Your task to perform on an android device: see sites visited before in the chrome app Image 0: 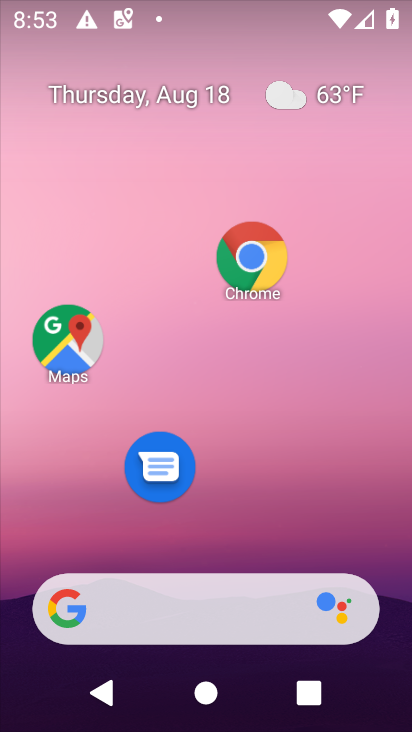
Step 0: drag from (308, 490) to (261, 104)
Your task to perform on an android device: see sites visited before in the chrome app Image 1: 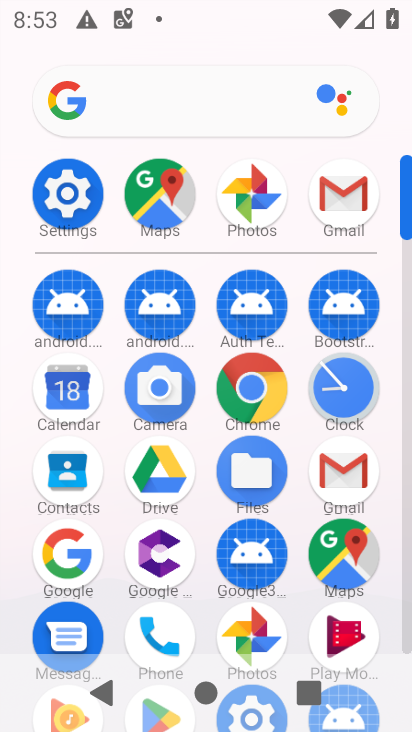
Step 1: task complete